Your task to perform on an android device: Show me popular videos on Youtube Image 0: 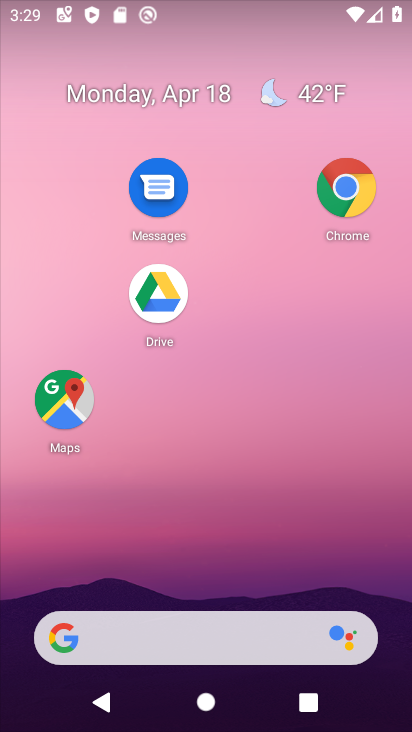
Step 0: drag from (222, 528) to (273, 16)
Your task to perform on an android device: Show me popular videos on Youtube Image 1: 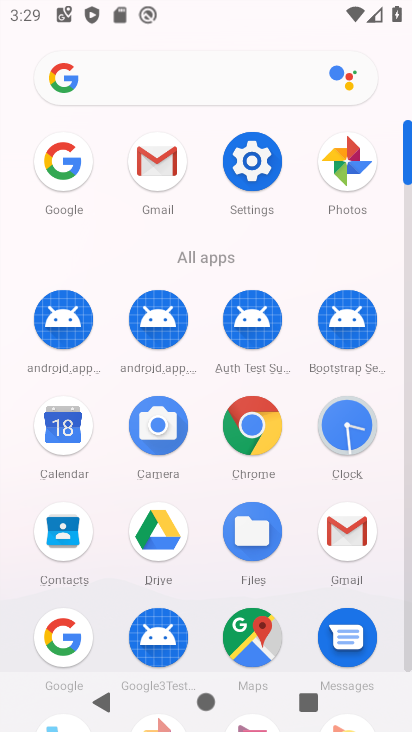
Step 1: drag from (229, 539) to (238, 265)
Your task to perform on an android device: Show me popular videos on Youtube Image 2: 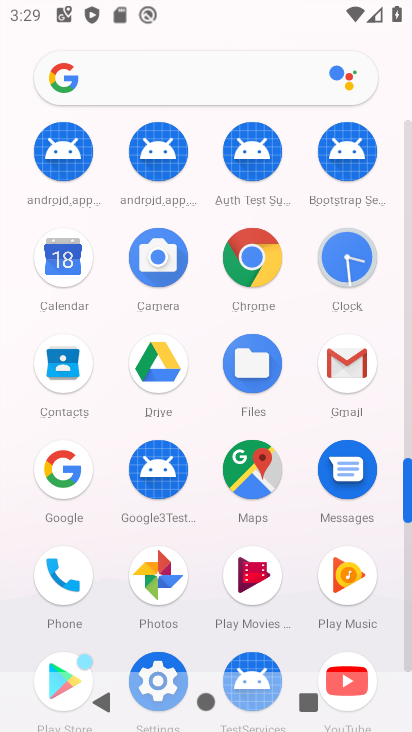
Step 2: drag from (280, 550) to (294, 221)
Your task to perform on an android device: Show me popular videos on Youtube Image 3: 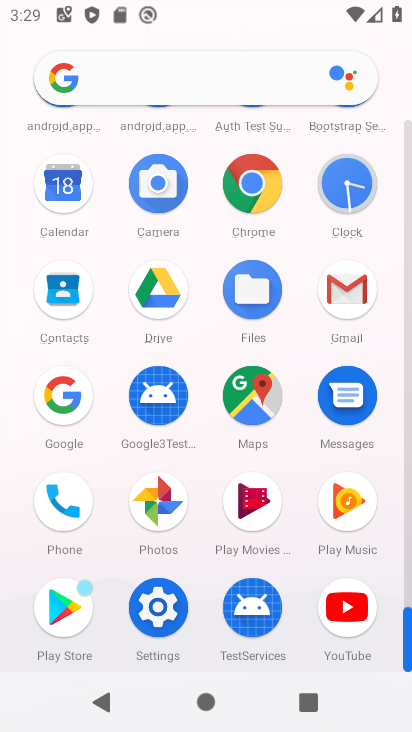
Step 3: click (332, 603)
Your task to perform on an android device: Show me popular videos on Youtube Image 4: 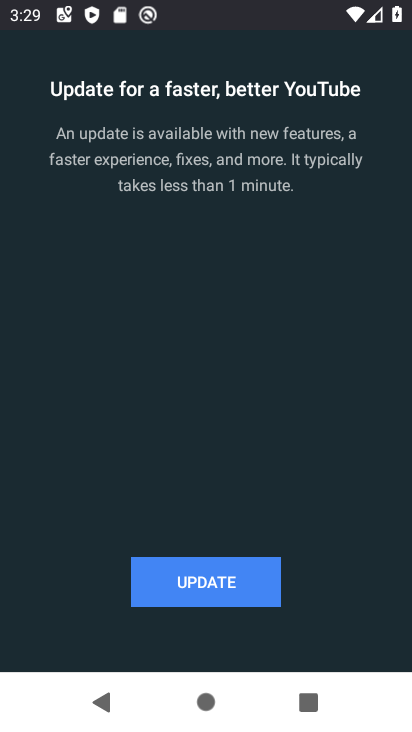
Step 4: click (222, 581)
Your task to perform on an android device: Show me popular videos on Youtube Image 5: 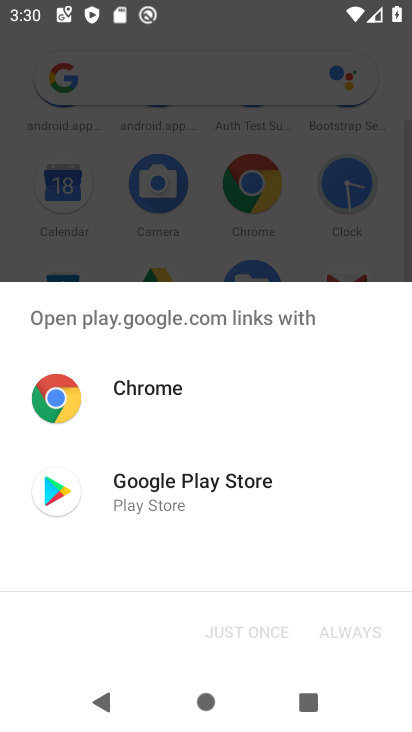
Step 5: click (194, 475)
Your task to perform on an android device: Show me popular videos on Youtube Image 6: 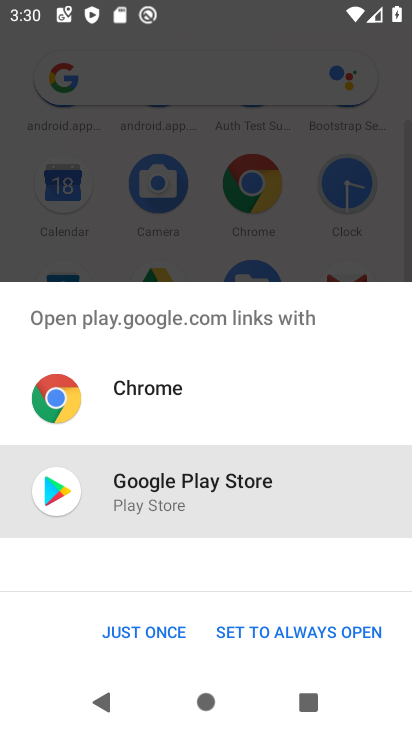
Step 6: click (137, 637)
Your task to perform on an android device: Show me popular videos on Youtube Image 7: 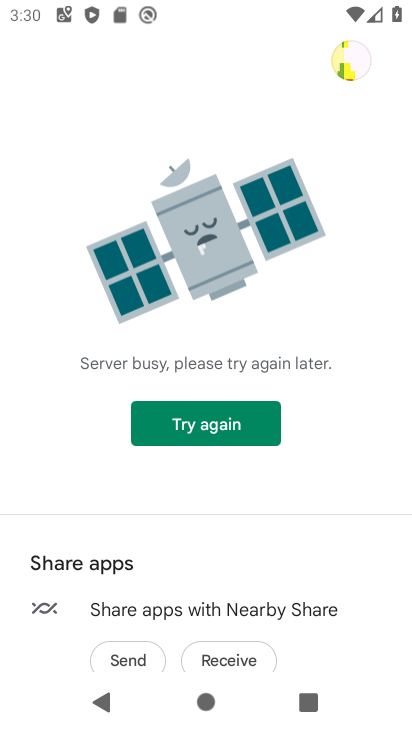
Step 7: click (198, 421)
Your task to perform on an android device: Show me popular videos on Youtube Image 8: 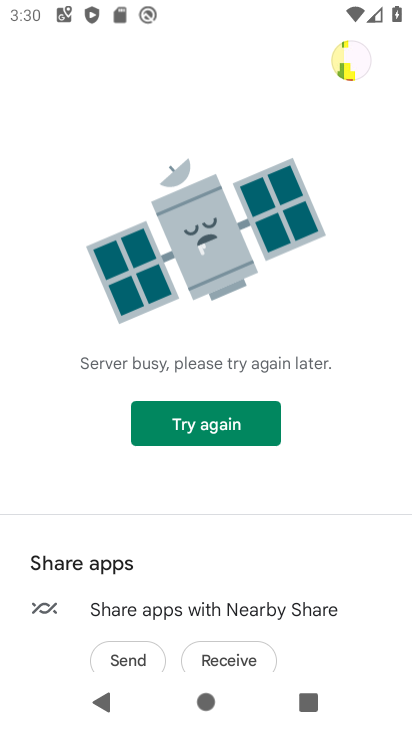
Step 8: press back button
Your task to perform on an android device: Show me popular videos on Youtube Image 9: 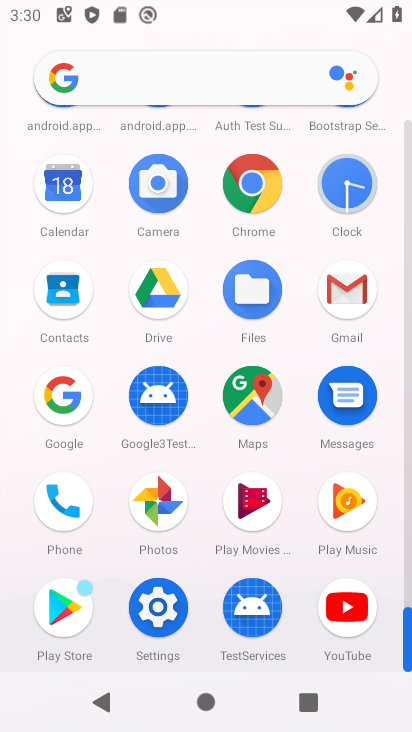
Step 9: click (356, 607)
Your task to perform on an android device: Show me popular videos on Youtube Image 10: 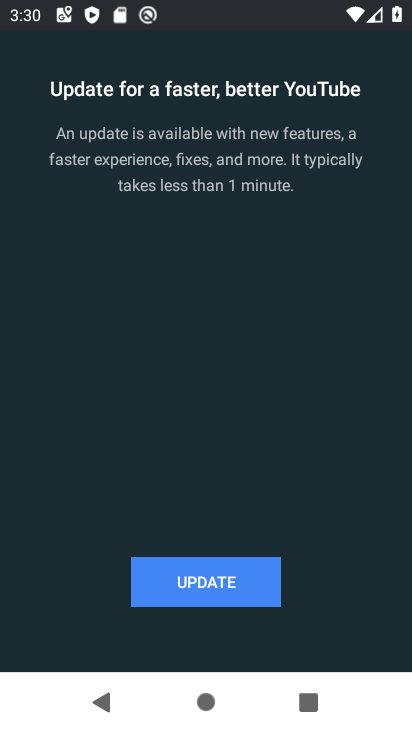
Step 10: click (194, 590)
Your task to perform on an android device: Show me popular videos on Youtube Image 11: 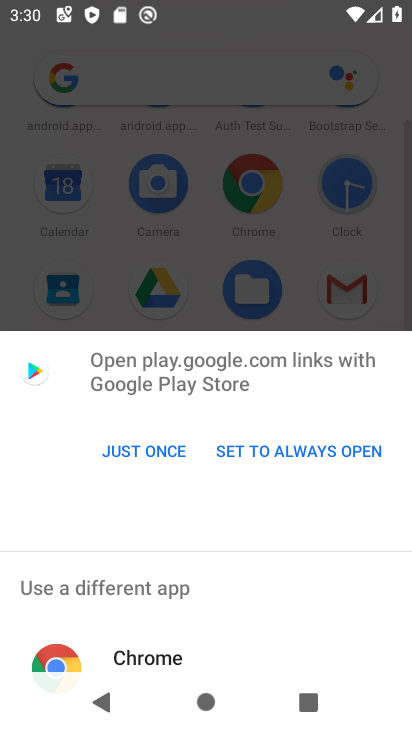
Step 11: click (184, 455)
Your task to perform on an android device: Show me popular videos on Youtube Image 12: 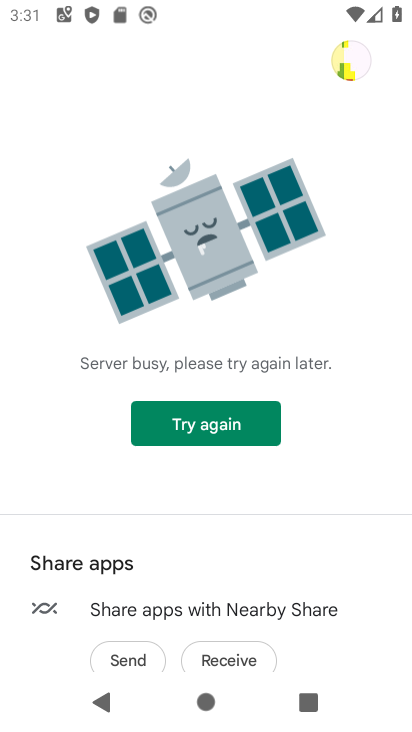
Step 12: task complete